Your task to perform on an android device: check android version Image 0: 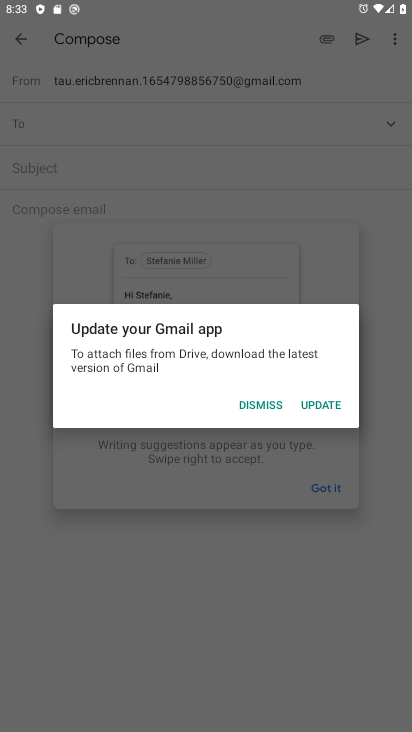
Step 0: press home button
Your task to perform on an android device: check android version Image 1: 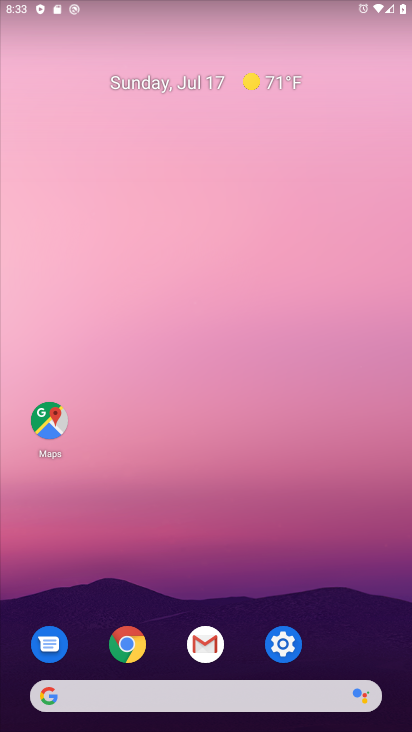
Step 1: drag from (263, 694) to (246, 123)
Your task to perform on an android device: check android version Image 2: 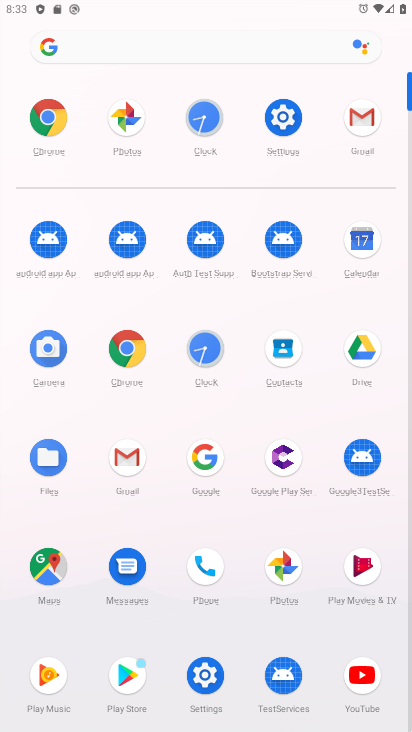
Step 2: click (53, 112)
Your task to perform on an android device: check android version Image 3: 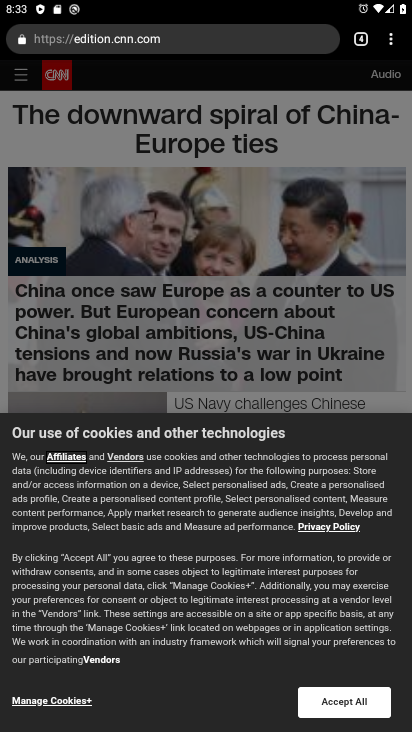
Step 3: click (396, 46)
Your task to perform on an android device: check android version Image 4: 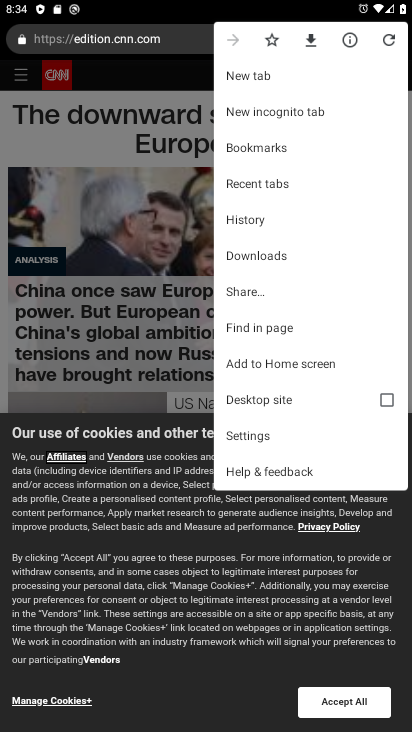
Step 4: click (255, 423)
Your task to perform on an android device: check android version Image 5: 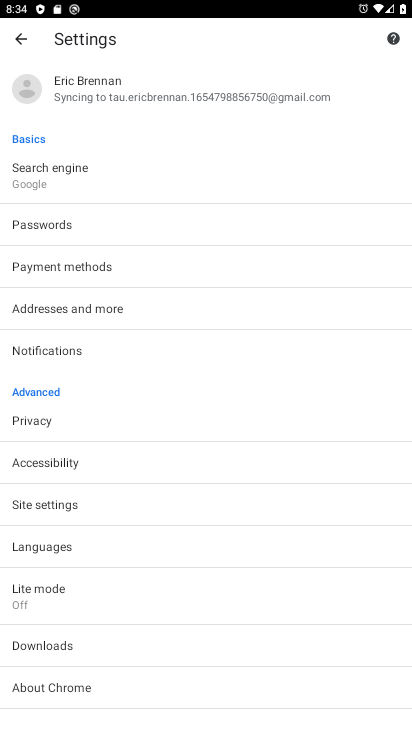
Step 5: click (86, 681)
Your task to perform on an android device: check android version Image 6: 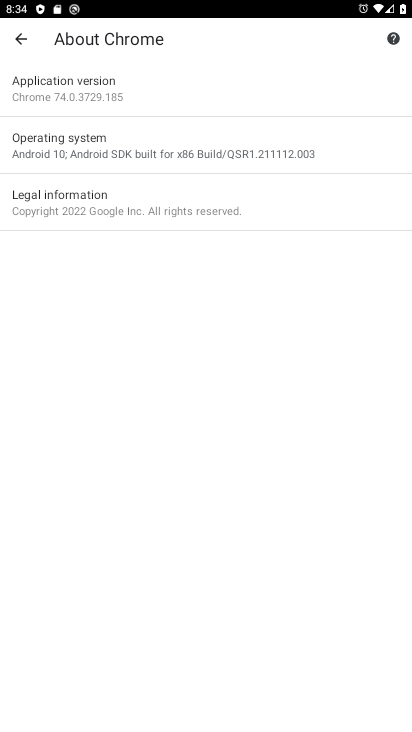
Step 6: click (114, 83)
Your task to perform on an android device: check android version Image 7: 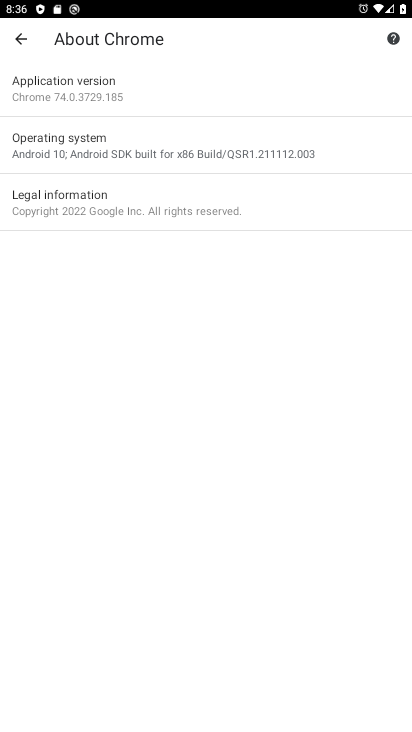
Step 7: task complete